Your task to perform on an android device: snooze an email in the gmail app Image 0: 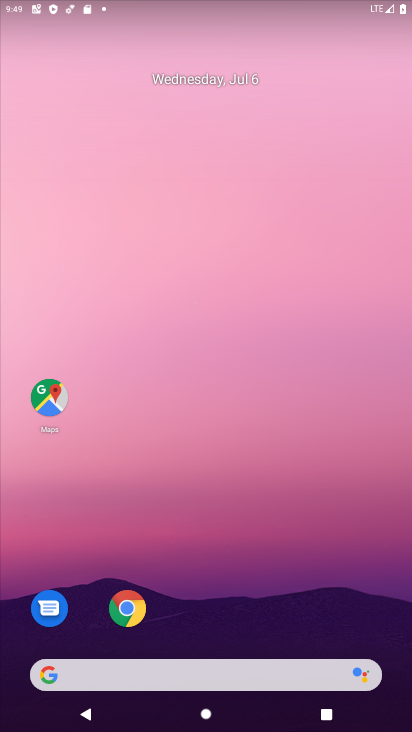
Step 0: drag from (199, 529) to (127, 222)
Your task to perform on an android device: snooze an email in the gmail app Image 1: 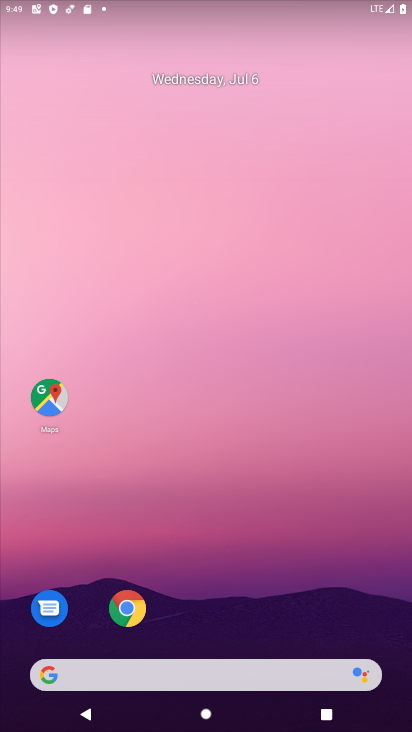
Step 1: drag from (151, 532) to (190, 143)
Your task to perform on an android device: snooze an email in the gmail app Image 2: 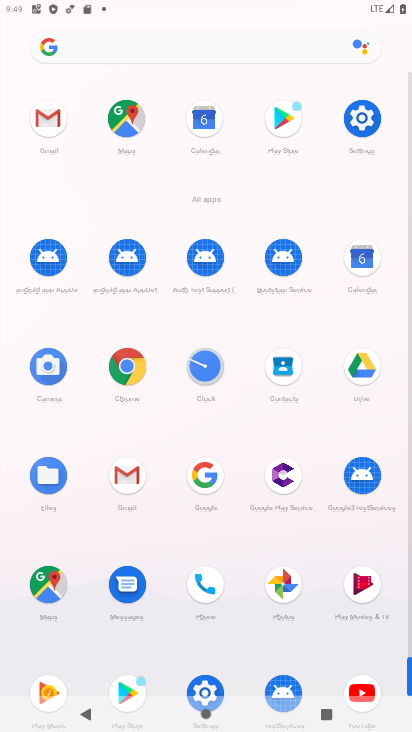
Step 2: click (51, 115)
Your task to perform on an android device: snooze an email in the gmail app Image 3: 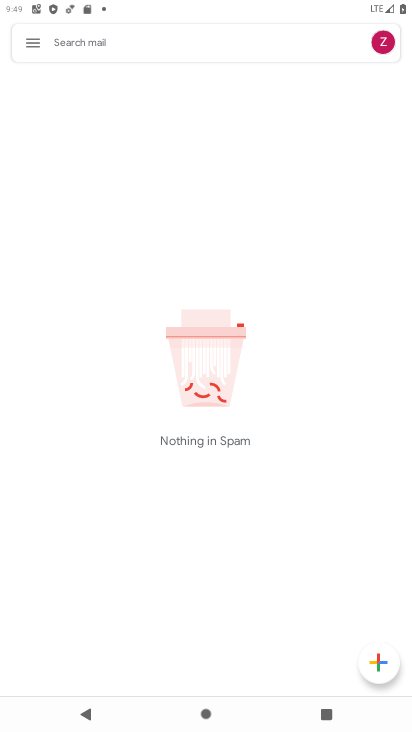
Step 3: task complete